Your task to perform on an android device: Go to privacy settings Image 0: 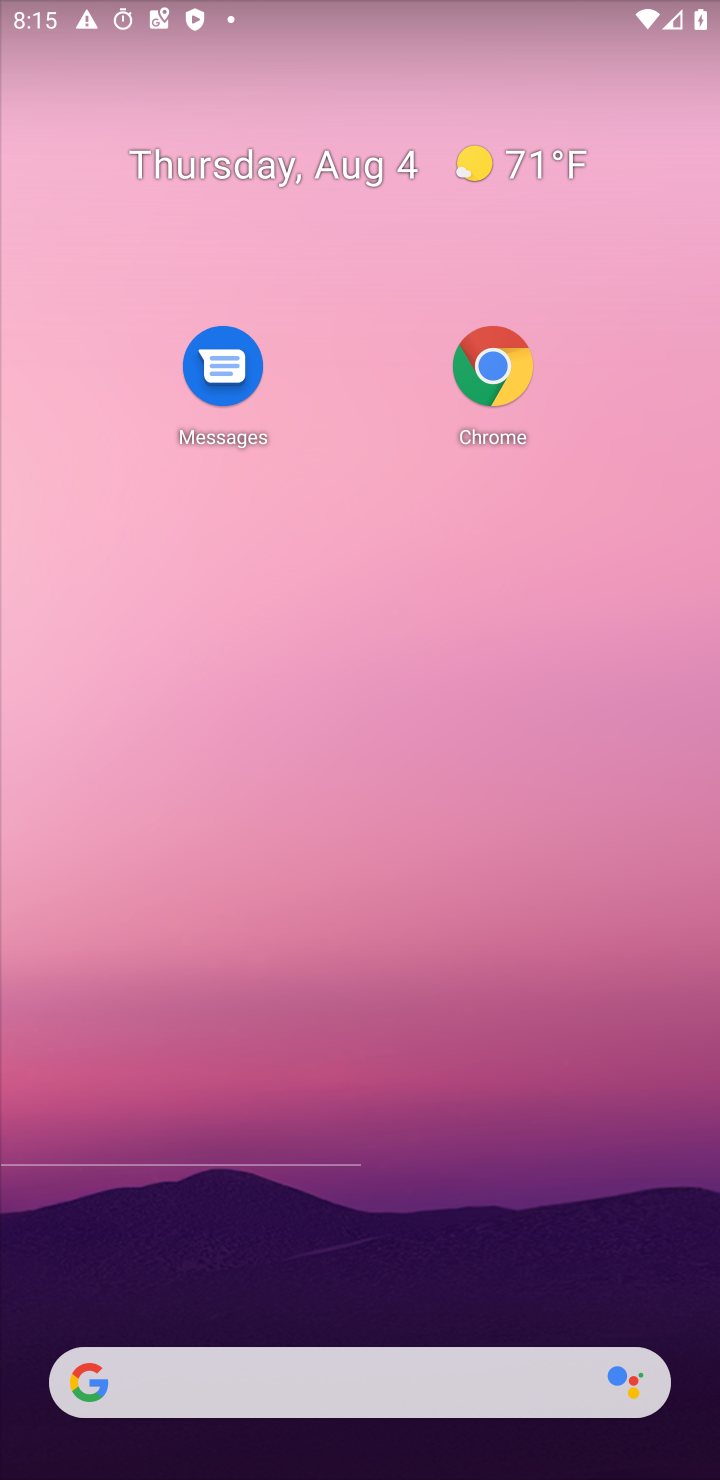
Step 0: press home button
Your task to perform on an android device: Go to privacy settings Image 1: 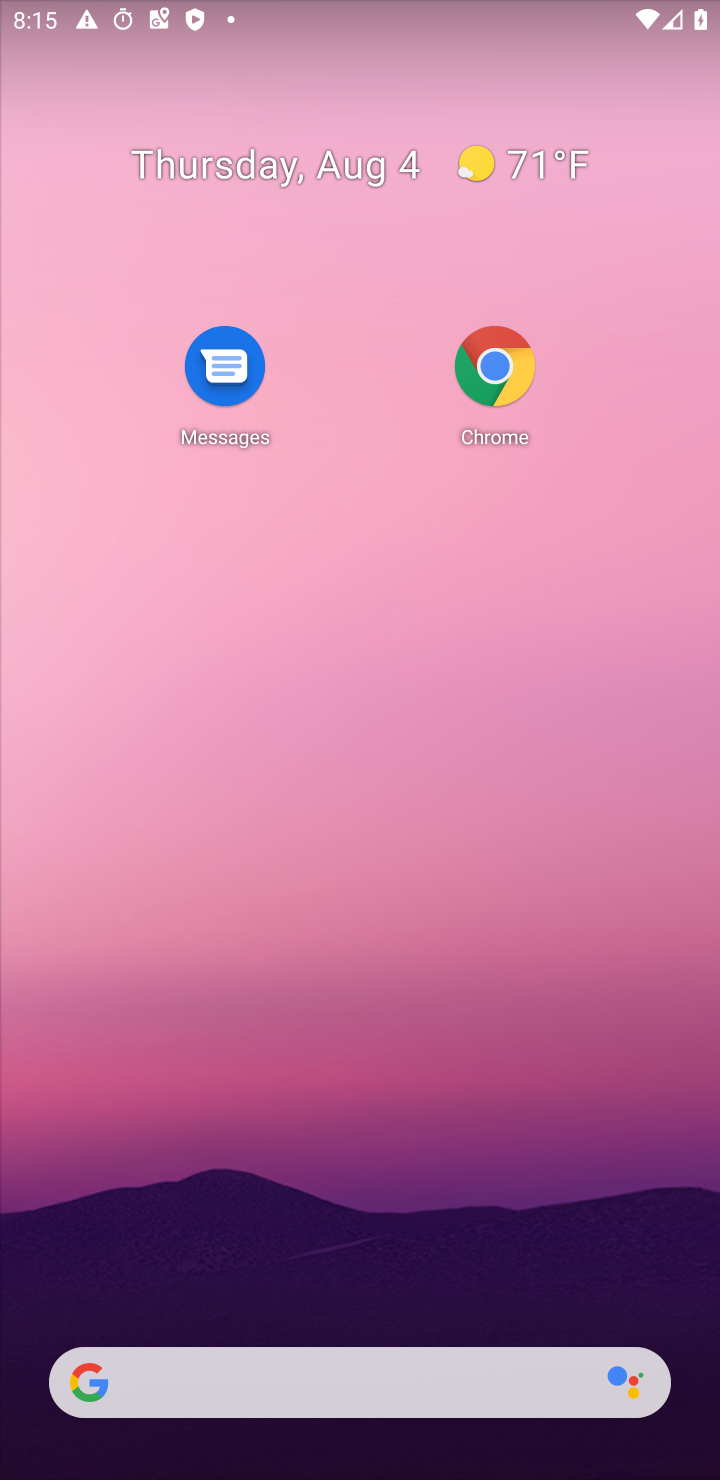
Step 1: drag from (388, 1396) to (286, 369)
Your task to perform on an android device: Go to privacy settings Image 2: 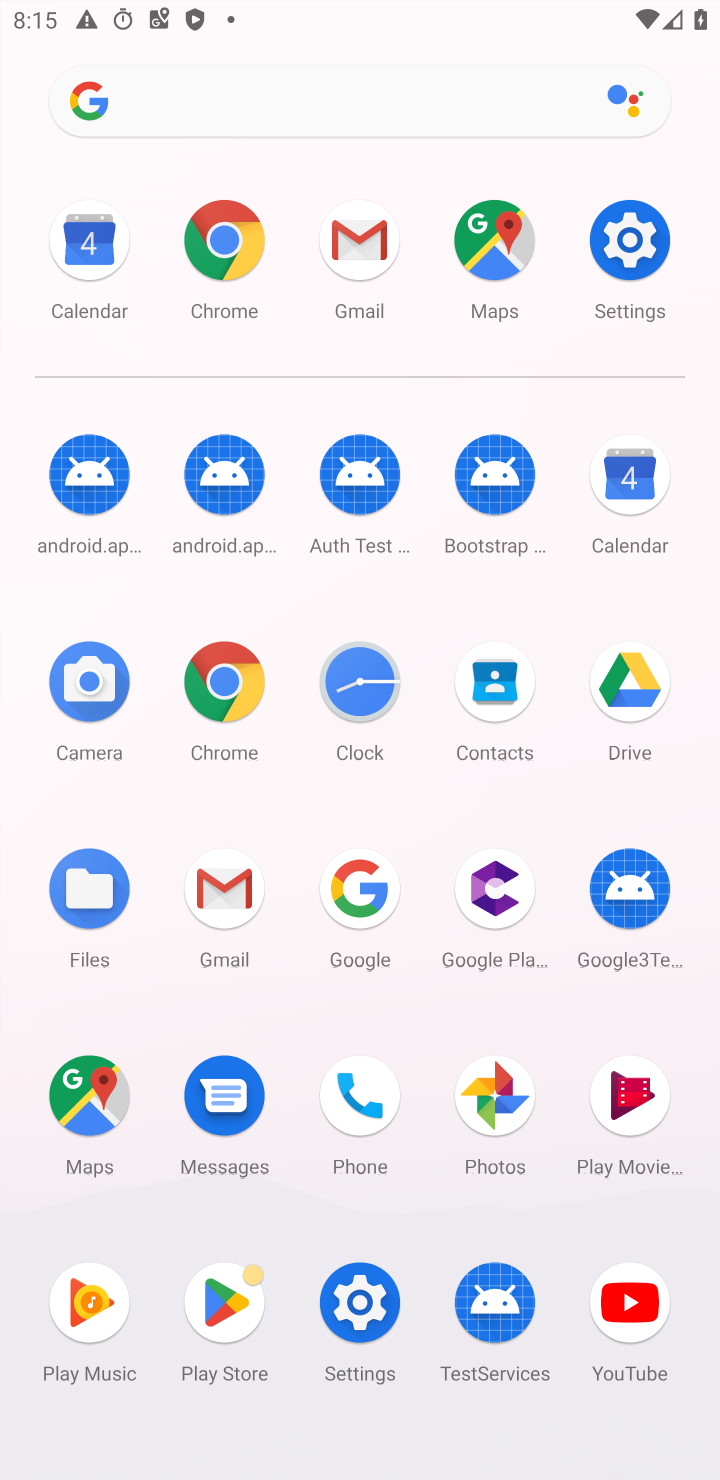
Step 2: click (617, 271)
Your task to perform on an android device: Go to privacy settings Image 3: 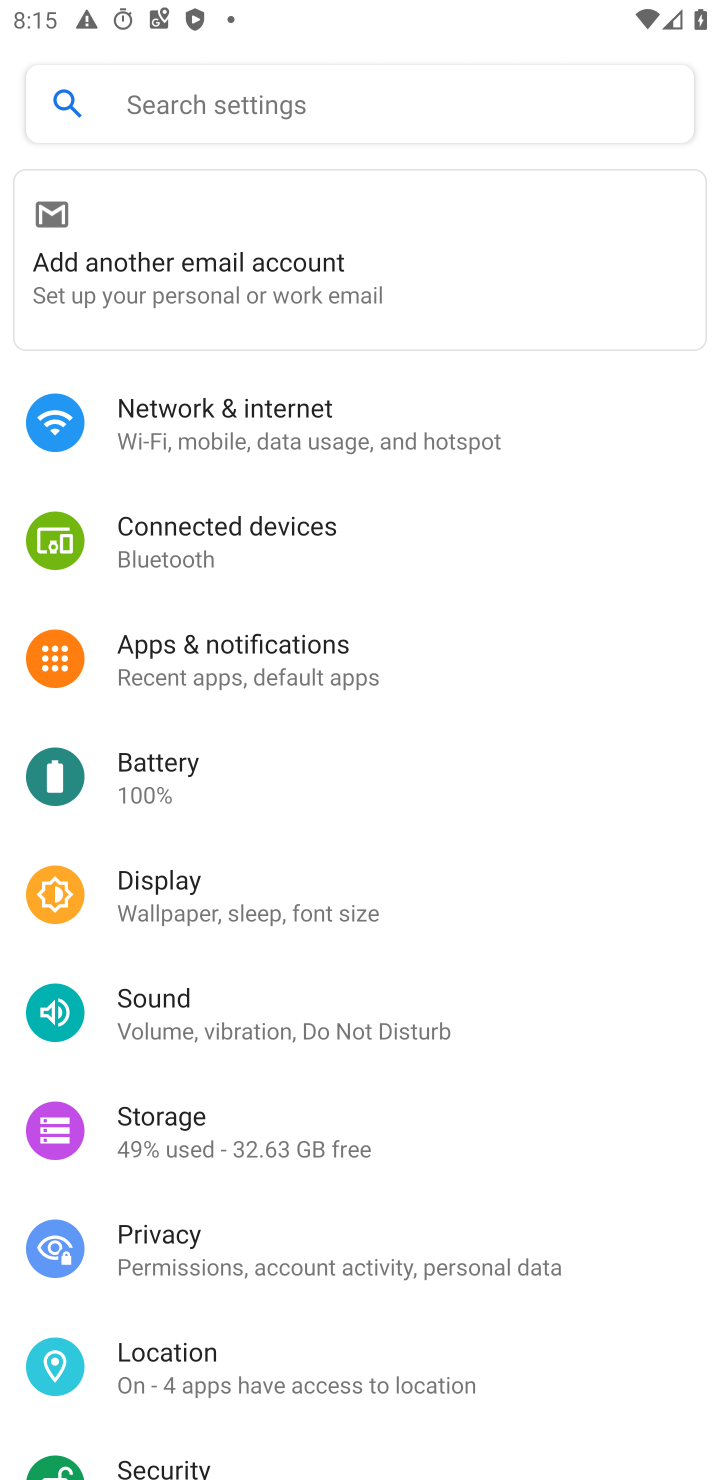
Step 3: click (169, 1250)
Your task to perform on an android device: Go to privacy settings Image 4: 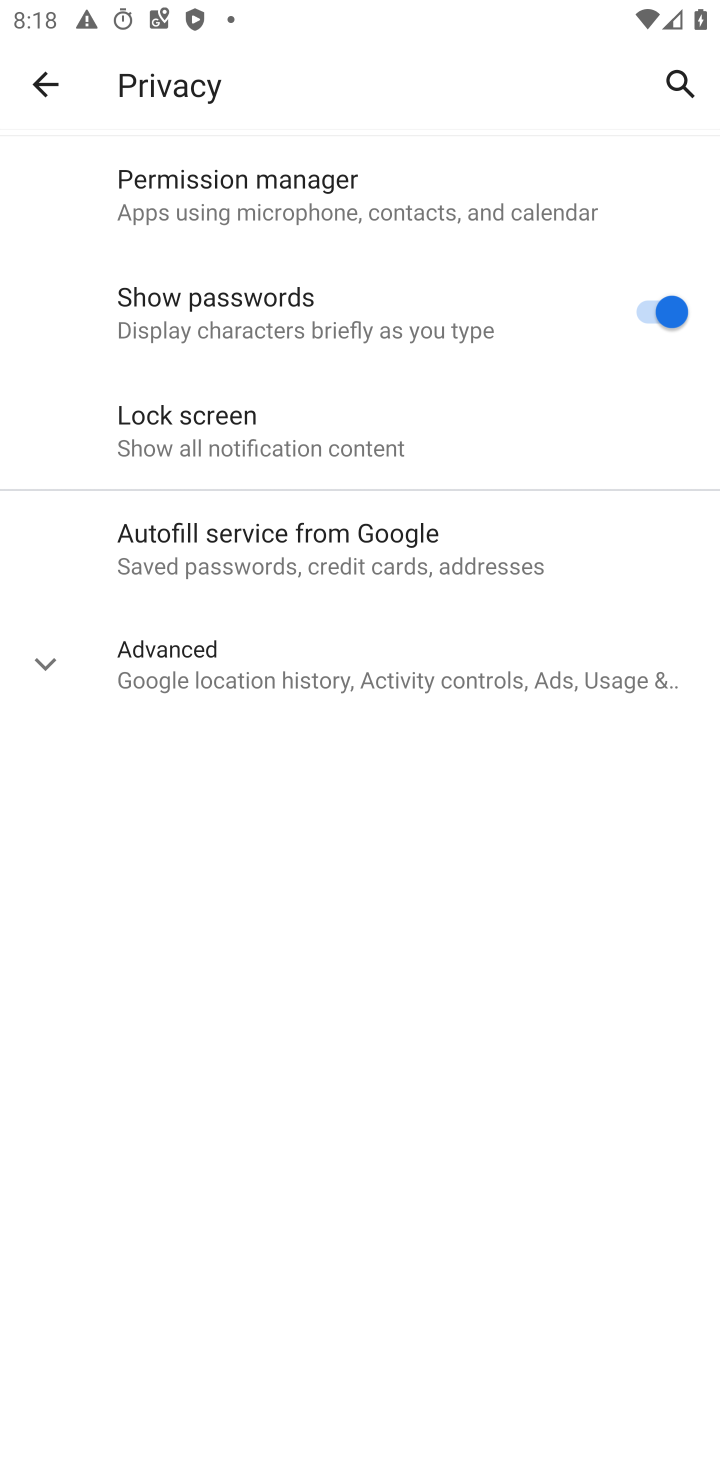
Step 4: task complete